Your task to perform on an android device: choose inbox layout in the gmail app Image 0: 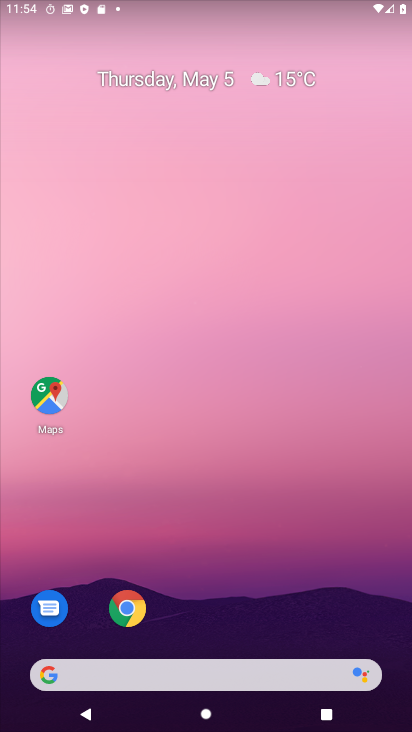
Step 0: drag from (225, 600) to (233, 85)
Your task to perform on an android device: choose inbox layout in the gmail app Image 1: 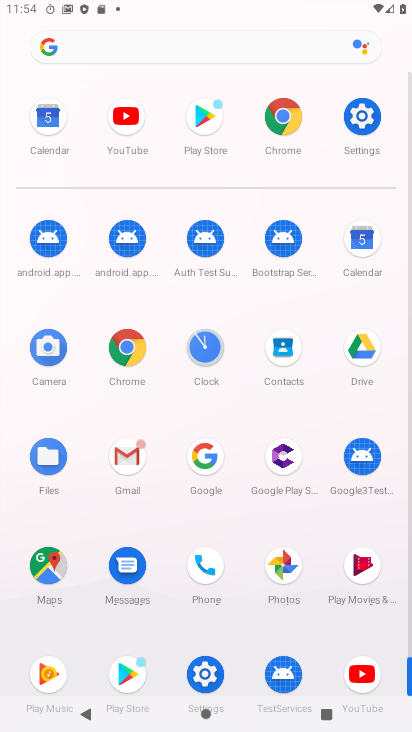
Step 1: click (129, 455)
Your task to perform on an android device: choose inbox layout in the gmail app Image 2: 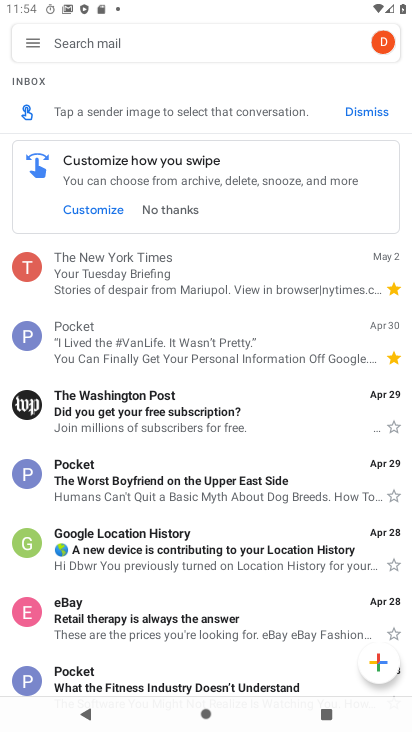
Step 2: click (24, 39)
Your task to perform on an android device: choose inbox layout in the gmail app Image 3: 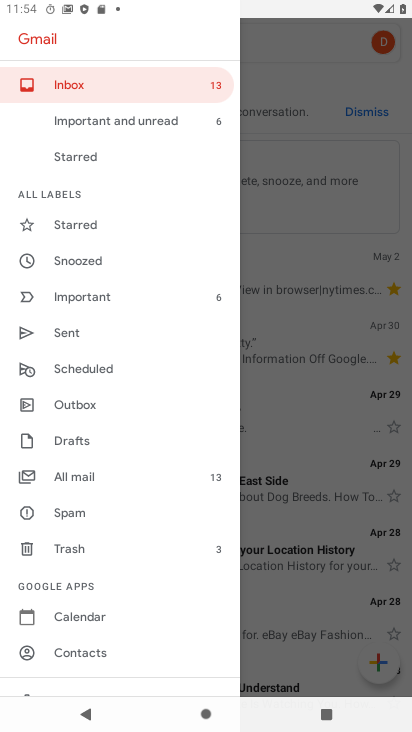
Step 3: drag from (91, 346) to (128, 266)
Your task to perform on an android device: choose inbox layout in the gmail app Image 4: 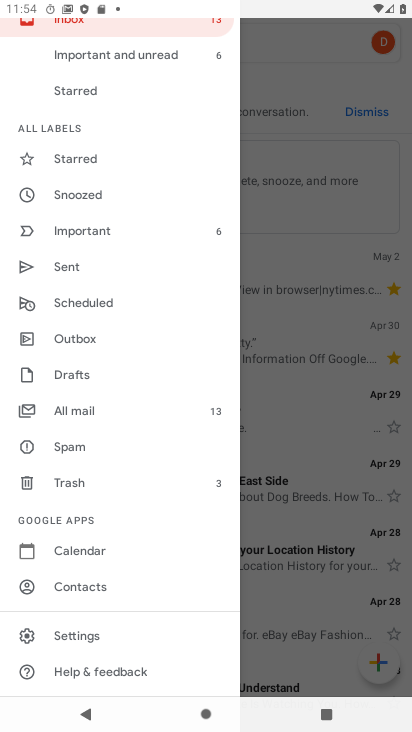
Step 4: click (84, 637)
Your task to perform on an android device: choose inbox layout in the gmail app Image 5: 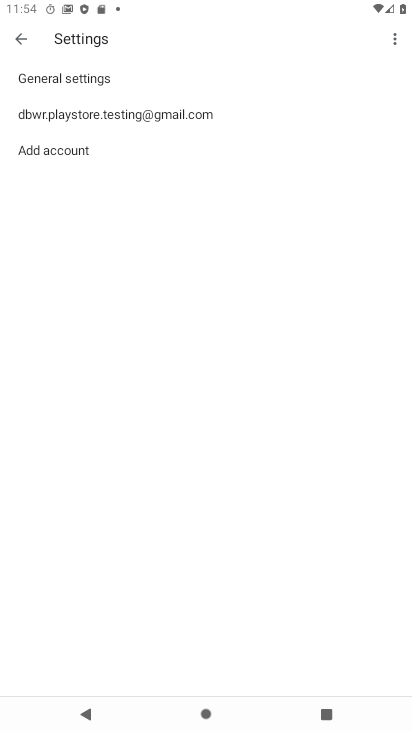
Step 5: click (139, 114)
Your task to perform on an android device: choose inbox layout in the gmail app Image 6: 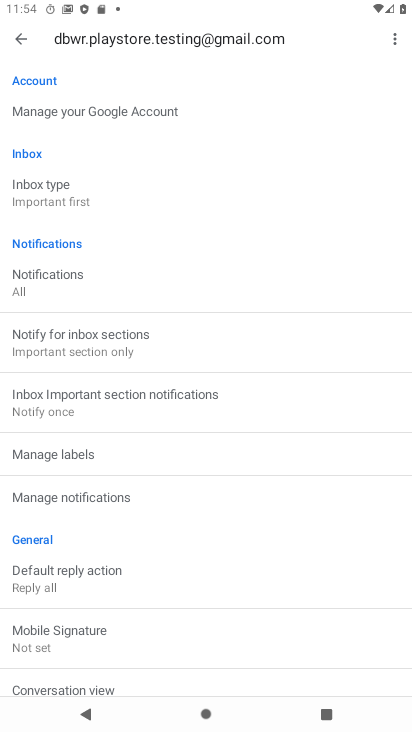
Step 6: click (62, 201)
Your task to perform on an android device: choose inbox layout in the gmail app Image 7: 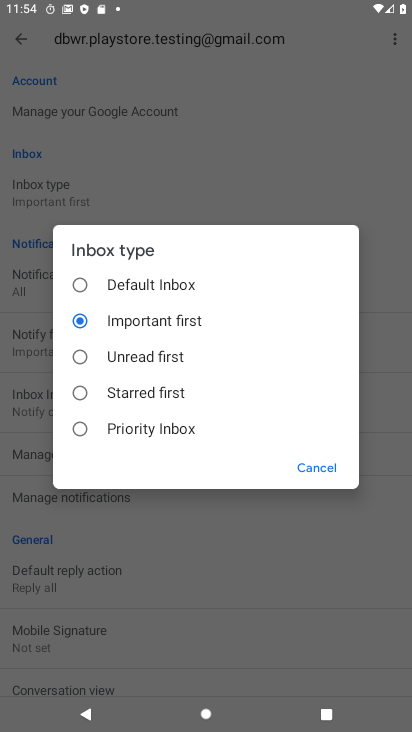
Step 7: click (98, 285)
Your task to perform on an android device: choose inbox layout in the gmail app Image 8: 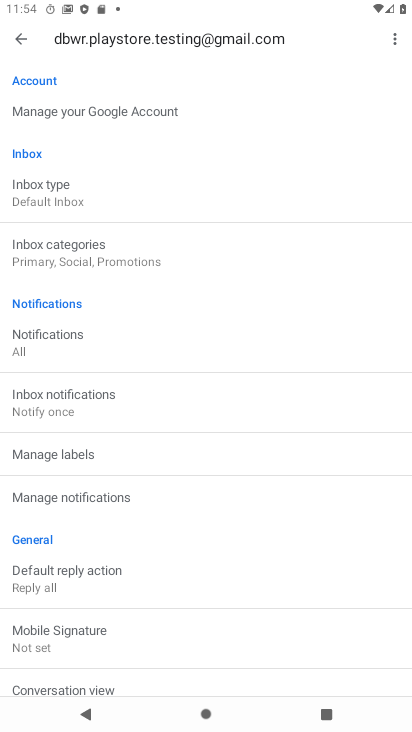
Step 8: task complete